Your task to perform on an android device: toggle location history Image 0: 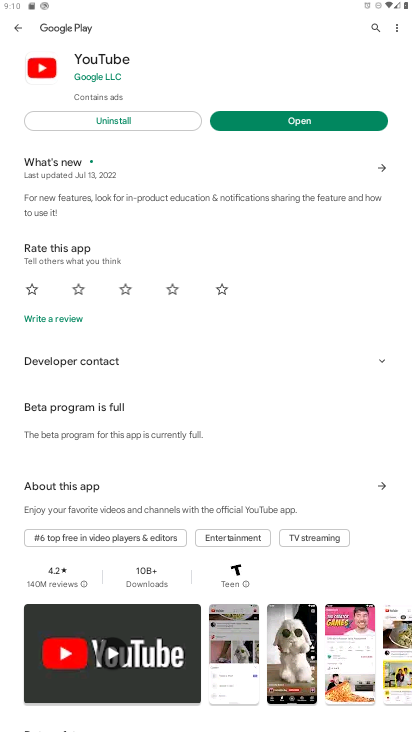
Step 0: press home button
Your task to perform on an android device: toggle location history Image 1: 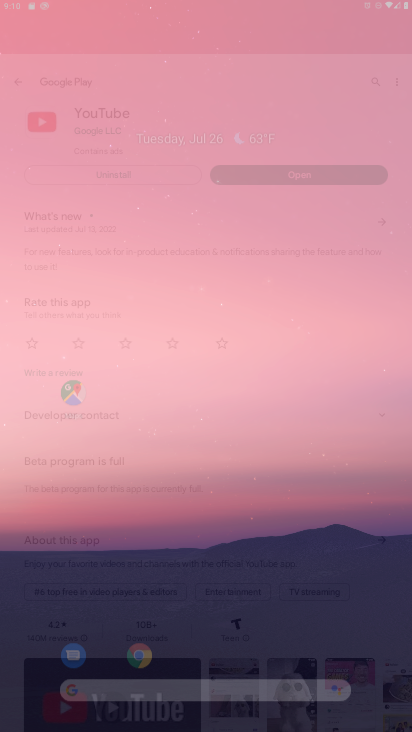
Step 1: drag from (383, 660) to (144, 1)
Your task to perform on an android device: toggle location history Image 2: 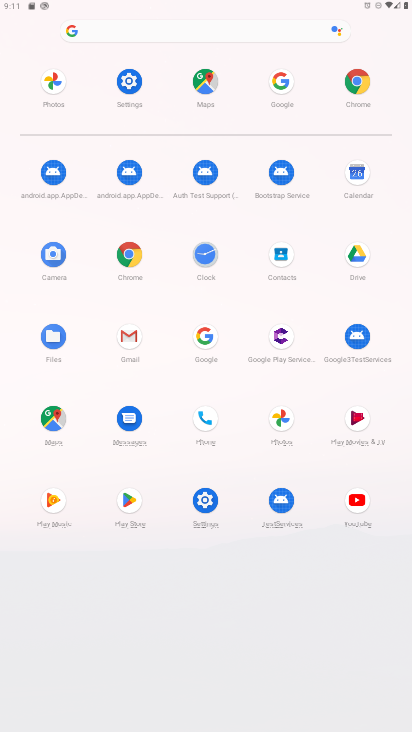
Step 2: click (196, 508)
Your task to perform on an android device: toggle location history Image 3: 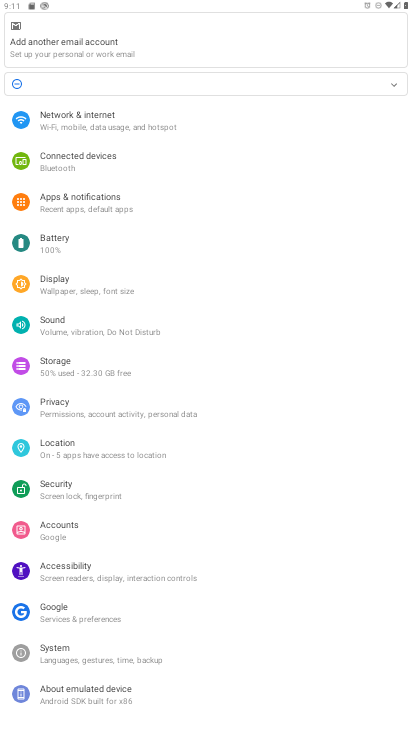
Step 3: click (59, 452)
Your task to perform on an android device: toggle location history Image 4: 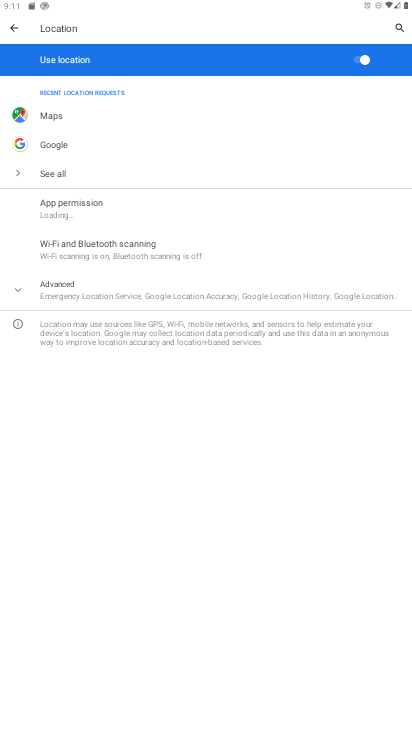
Step 4: click (83, 283)
Your task to perform on an android device: toggle location history Image 5: 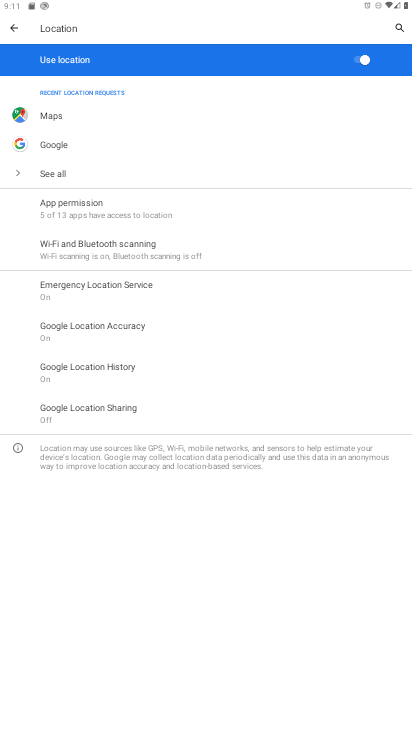
Step 5: click (93, 354)
Your task to perform on an android device: toggle location history Image 6: 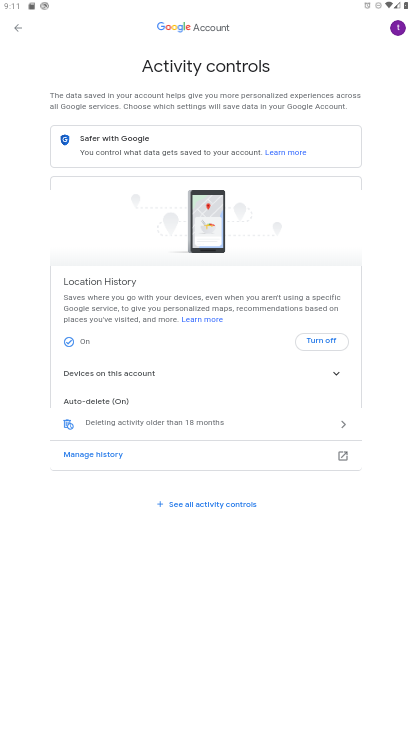
Step 6: click (320, 332)
Your task to perform on an android device: toggle location history Image 7: 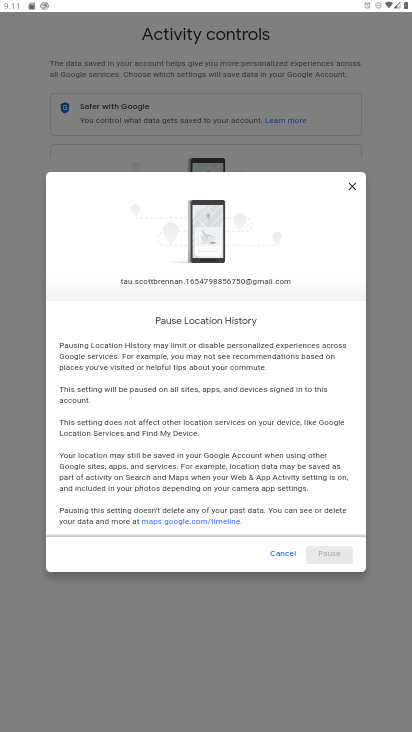
Step 7: task complete